Your task to perform on an android device: What's on my calendar today? Image 0: 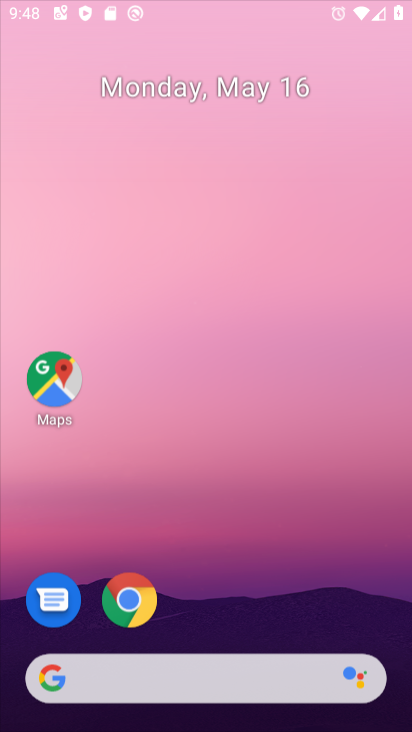
Step 0: drag from (297, 193) to (311, 137)
Your task to perform on an android device: What's on my calendar today? Image 1: 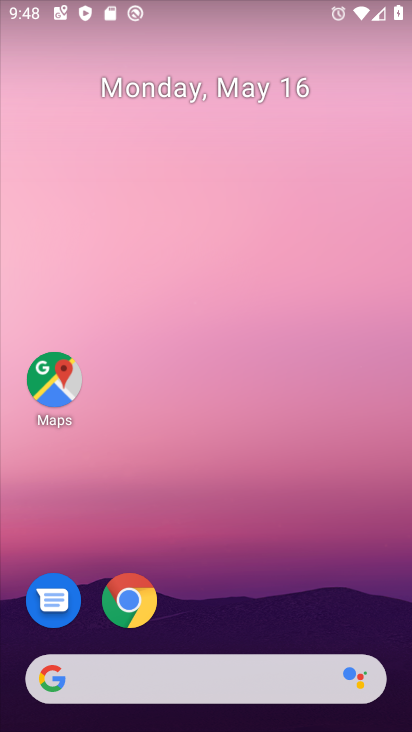
Step 1: drag from (191, 624) to (271, 76)
Your task to perform on an android device: What's on my calendar today? Image 2: 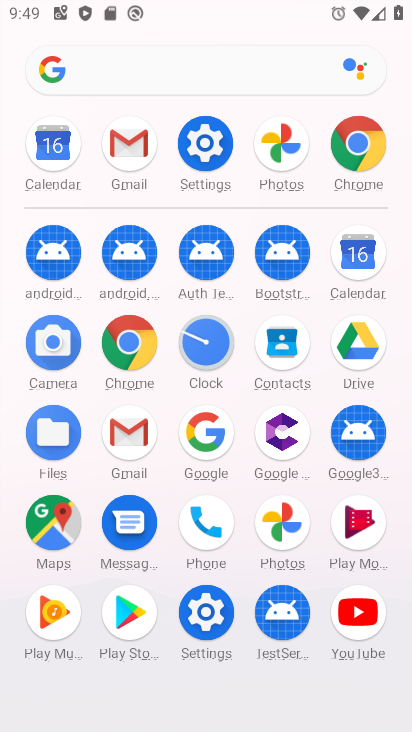
Step 2: click (365, 261)
Your task to perform on an android device: What's on my calendar today? Image 3: 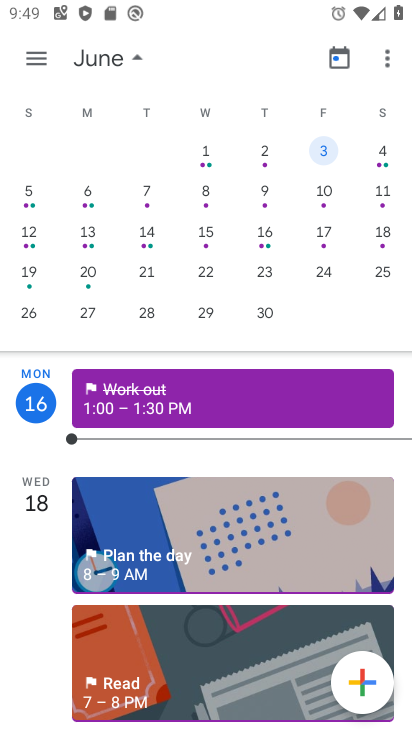
Step 3: drag from (73, 240) to (411, 185)
Your task to perform on an android device: What's on my calendar today? Image 4: 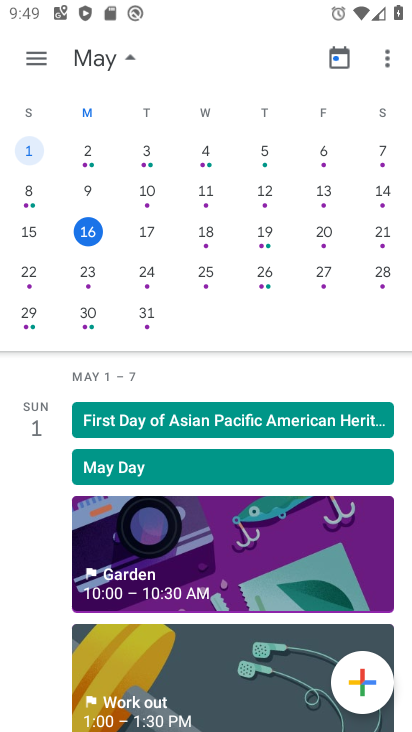
Step 4: click (92, 230)
Your task to perform on an android device: What's on my calendar today? Image 5: 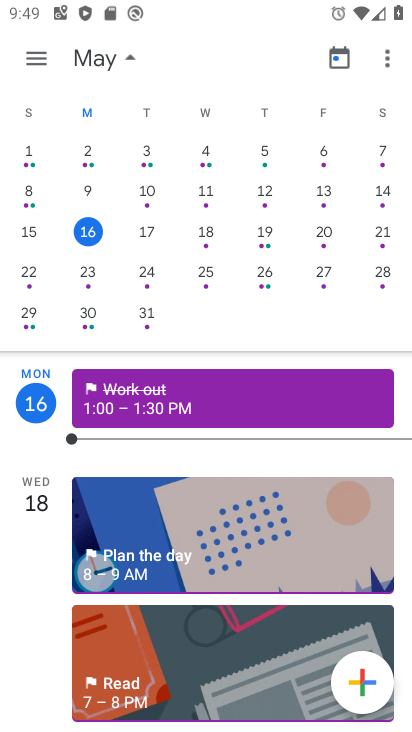
Step 5: task complete